Your task to perform on an android device: Show me the alarms in the clock app Image 0: 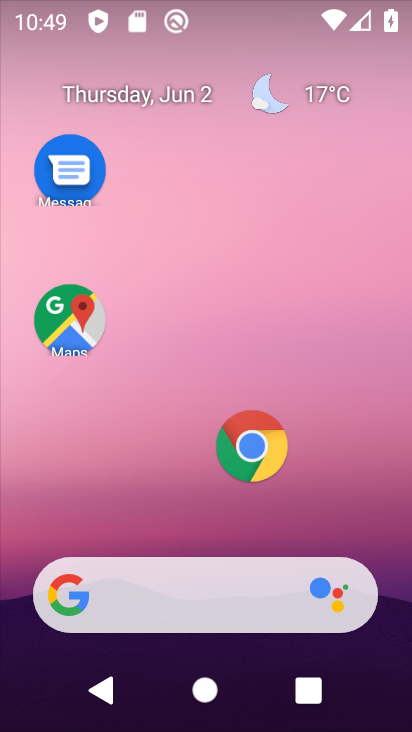
Step 0: drag from (171, 468) to (146, 34)
Your task to perform on an android device: Show me the alarms in the clock app Image 1: 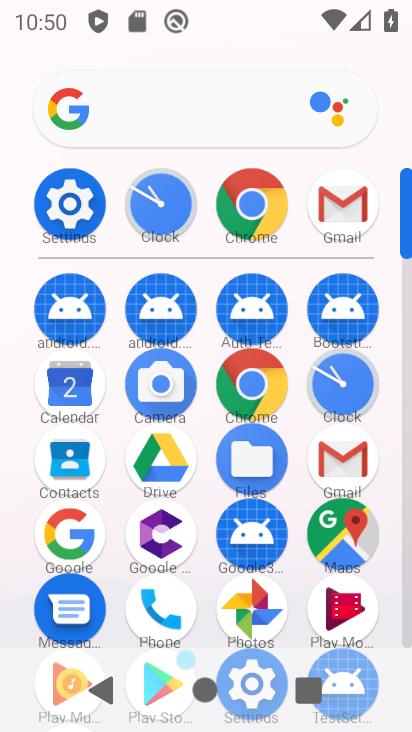
Step 1: click (161, 183)
Your task to perform on an android device: Show me the alarms in the clock app Image 2: 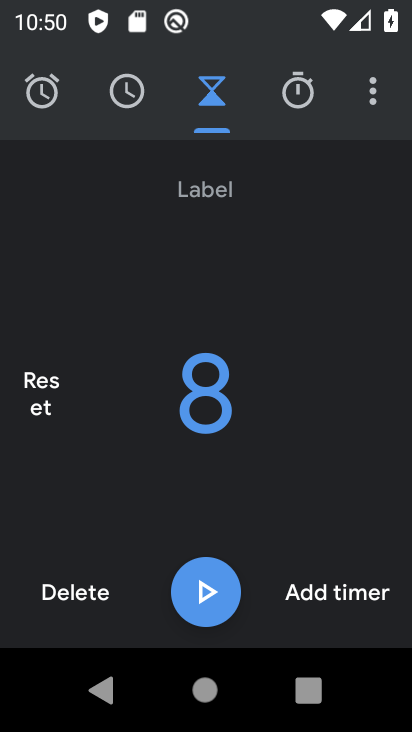
Step 2: click (52, 84)
Your task to perform on an android device: Show me the alarms in the clock app Image 3: 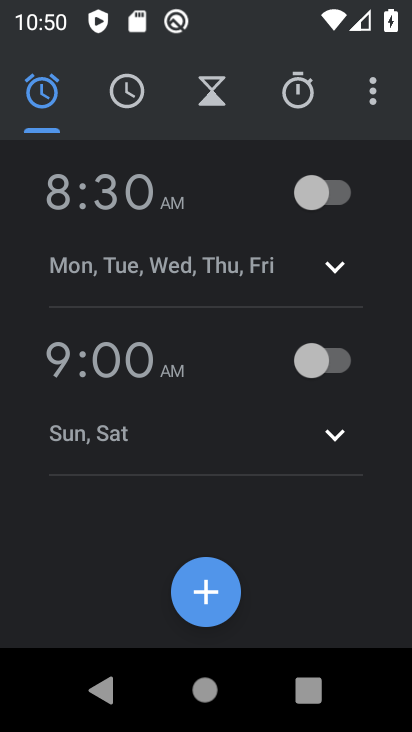
Step 3: task complete